Your task to perform on an android device: turn off smart reply in the gmail app Image 0: 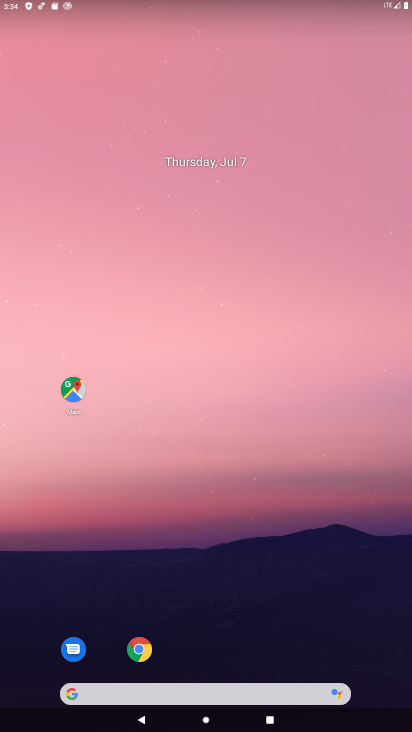
Step 0: drag from (266, 647) to (280, 149)
Your task to perform on an android device: turn off smart reply in the gmail app Image 1: 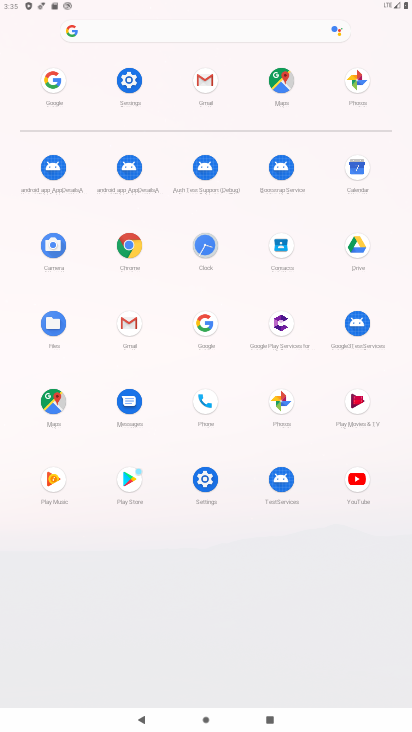
Step 1: click (127, 333)
Your task to perform on an android device: turn off smart reply in the gmail app Image 2: 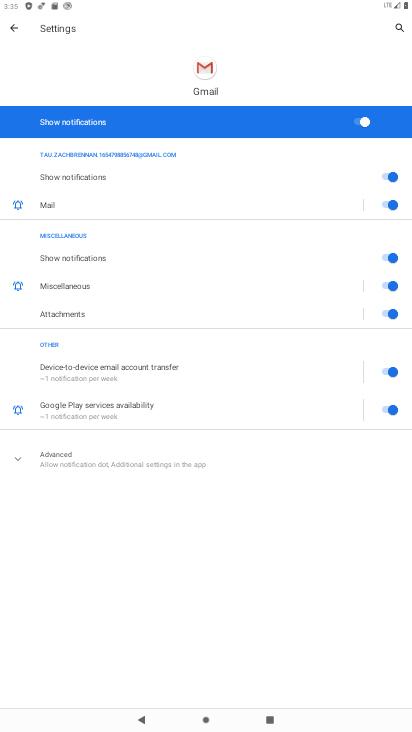
Step 2: click (11, 17)
Your task to perform on an android device: turn off smart reply in the gmail app Image 3: 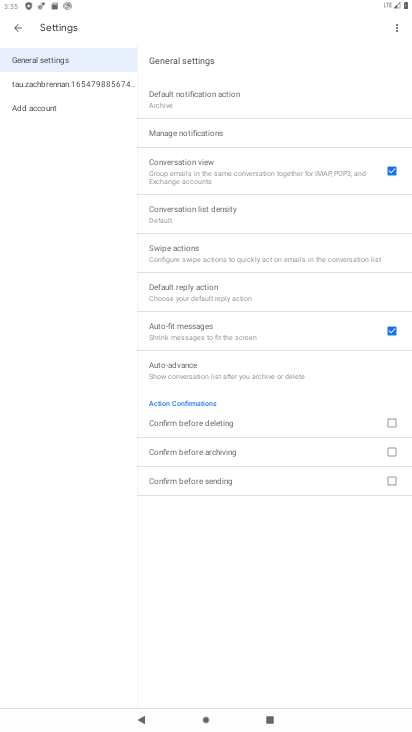
Step 3: click (94, 84)
Your task to perform on an android device: turn off smart reply in the gmail app Image 4: 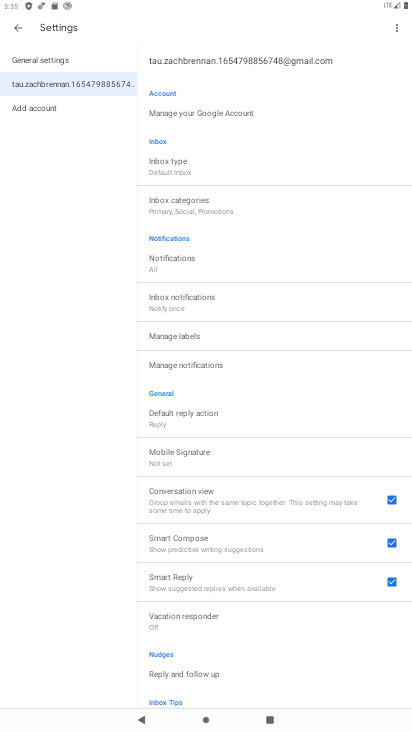
Step 4: drag from (274, 494) to (297, 302)
Your task to perform on an android device: turn off smart reply in the gmail app Image 5: 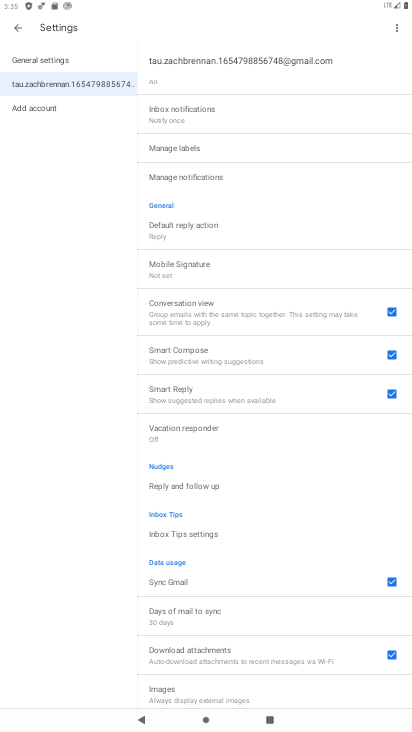
Step 5: click (391, 394)
Your task to perform on an android device: turn off smart reply in the gmail app Image 6: 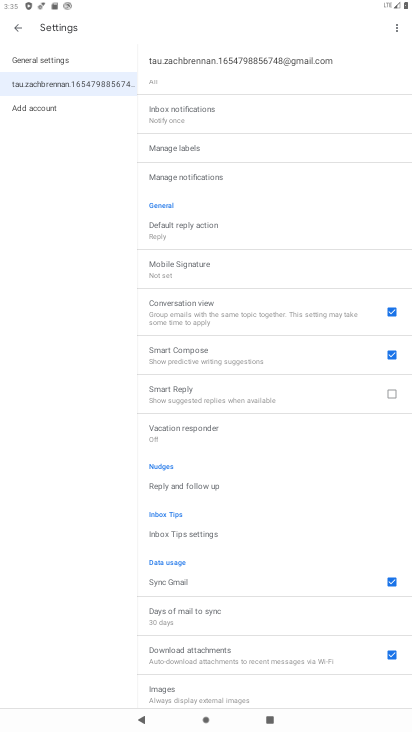
Step 6: task complete